Your task to perform on an android device: Go to sound settings Image 0: 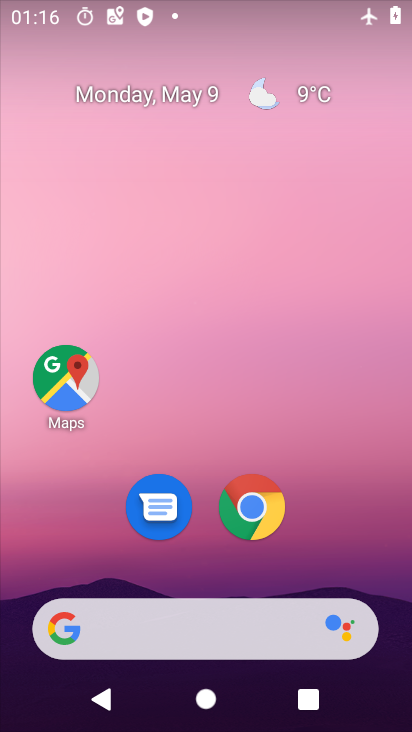
Step 0: drag from (225, 724) to (224, 137)
Your task to perform on an android device: Go to sound settings Image 1: 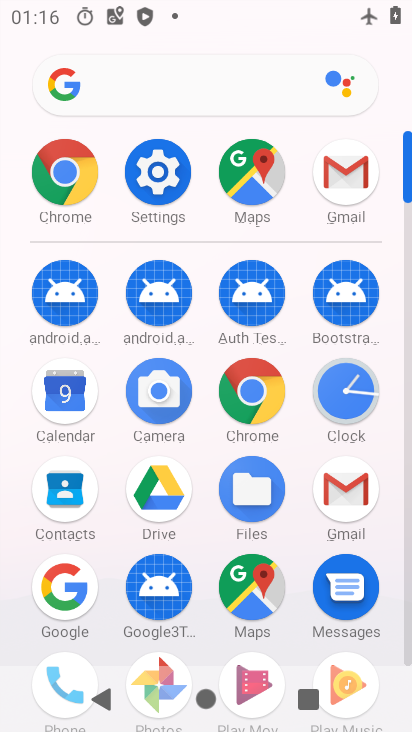
Step 1: click (165, 172)
Your task to perform on an android device: Go to sound settings Image 2: 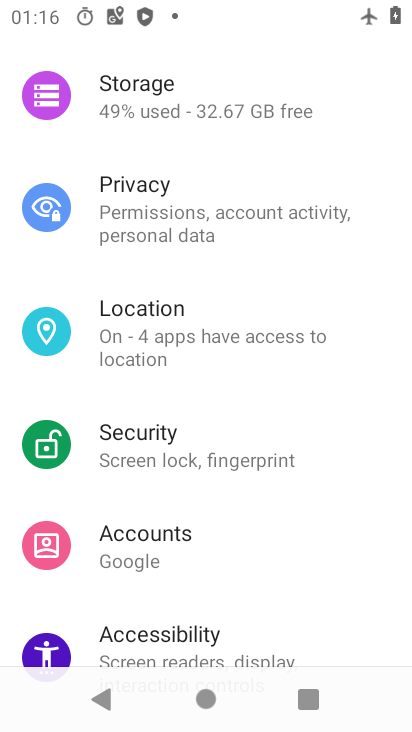
Step 2: click (211, 586)
Your task to perform on an android device: Go to sound settings Image 3: 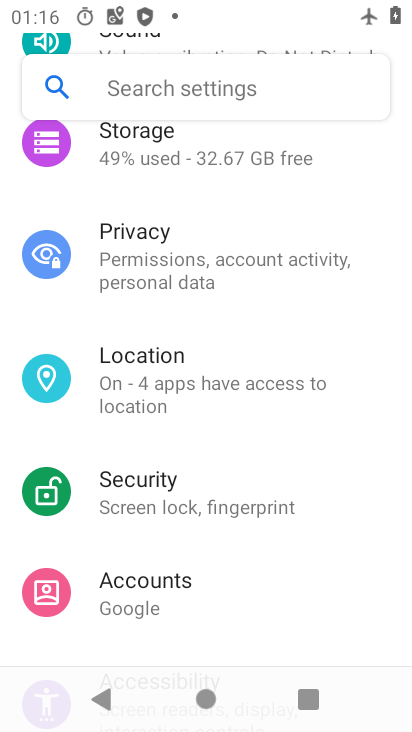
Step 3: drag from (260, 142) to (256, 555)
Your task to perform on an android device: Go to sound settings Image 4: 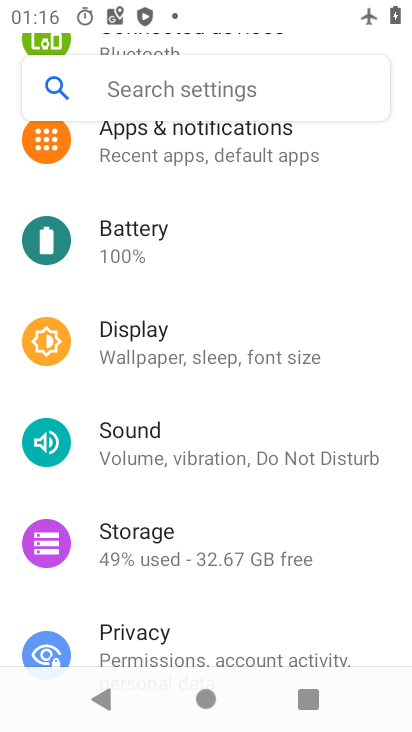
Step 4: click (118, 445)
Your task to perform on an android device: Go to sound settings Image 5: 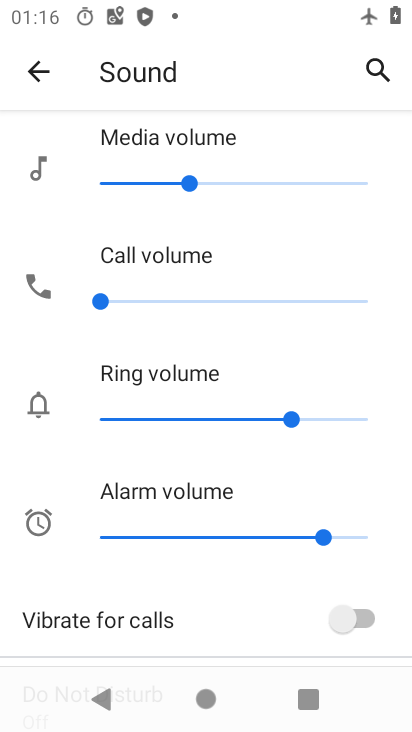
Step 5: task complete